Your task to perform on an android device: Go to Yahoo.com Image 0: 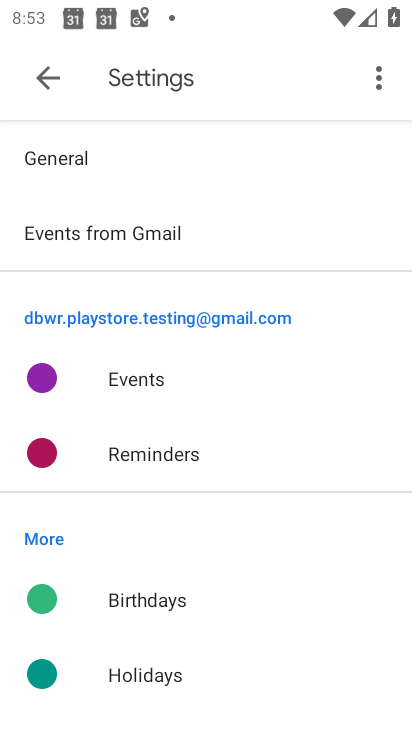
Step 0: click (40, 85)
Your task to perform on an android device: Go to Yahoo.com Image 1: 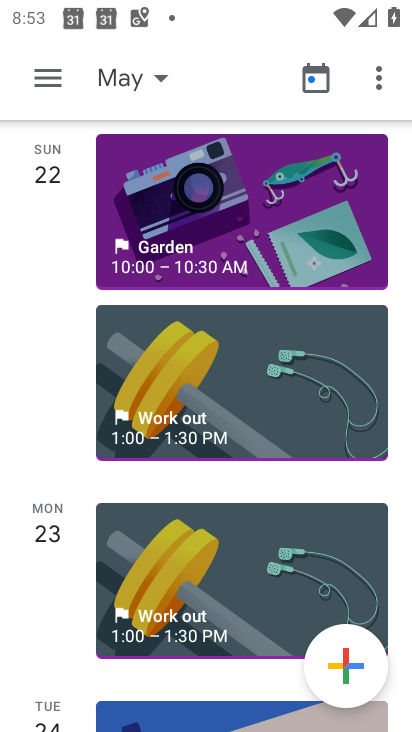
Step 1: press home button
Your task to perform on an android device: Go to Yahoo.com Image 2: 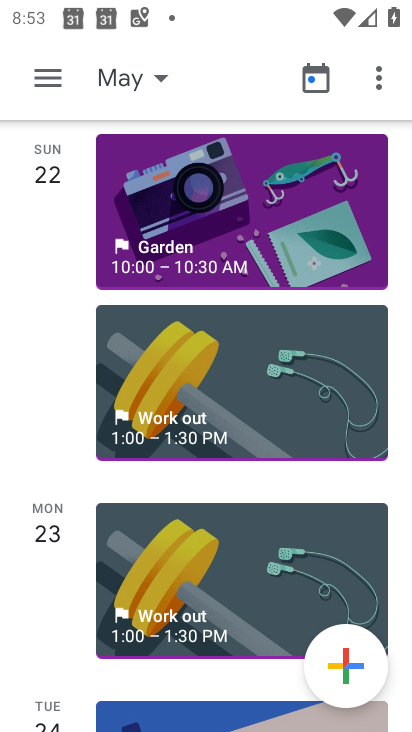
Step 2: press home button
Your task to perform on an android device: Go to Yahoo.com Image 3: 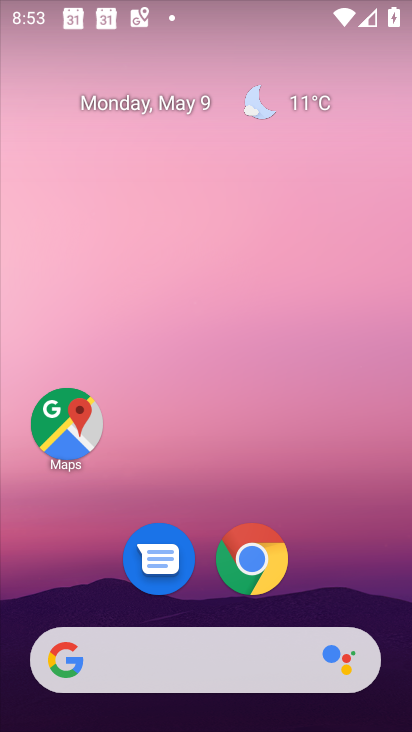
Step 3: click (247, 545)
Your task to perform on an android device: Go to Yahoo.com Image 4: 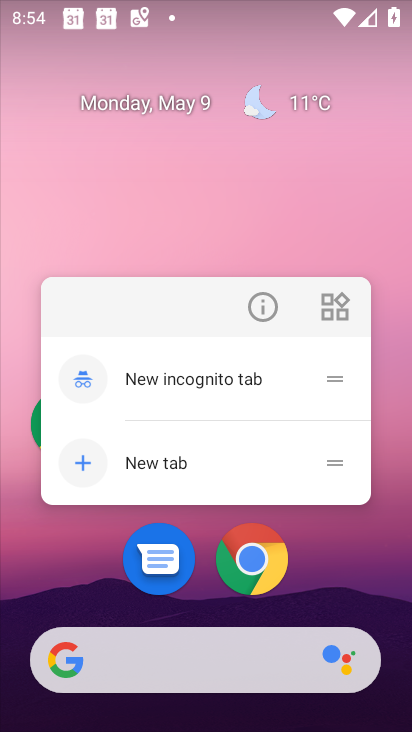
Step 4: click (250, 555)
Your task to perform on an android device: Go to Yahoo.com Image 5: 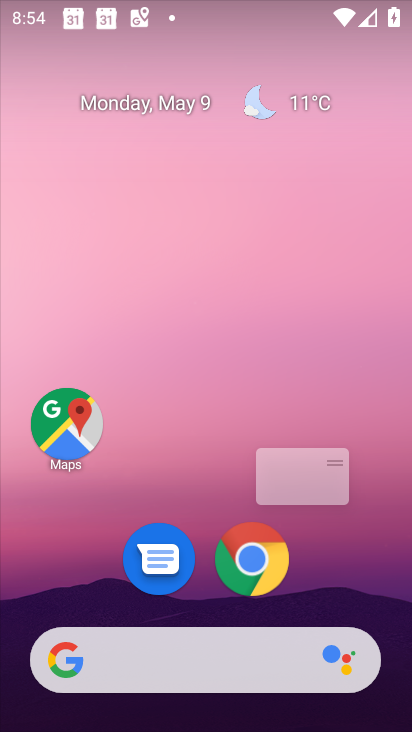
Step 5: click (250, 555)
Your task to perform on an android device: Go to Yahoo.com Image 6: 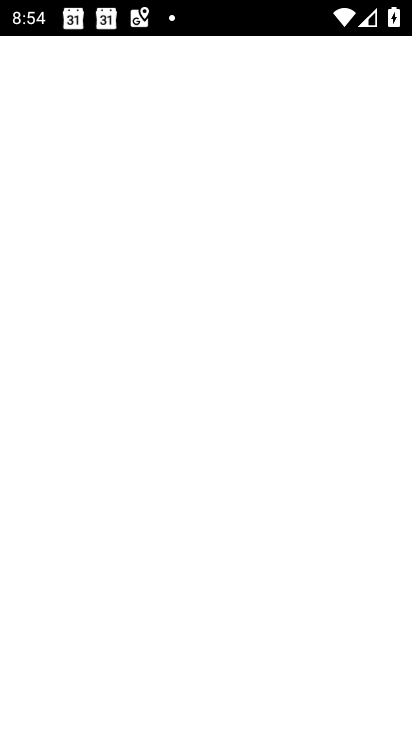
Step 6: click (239, 554)
Your task to perform on an android device: Go to Yahoo.com Image 7: 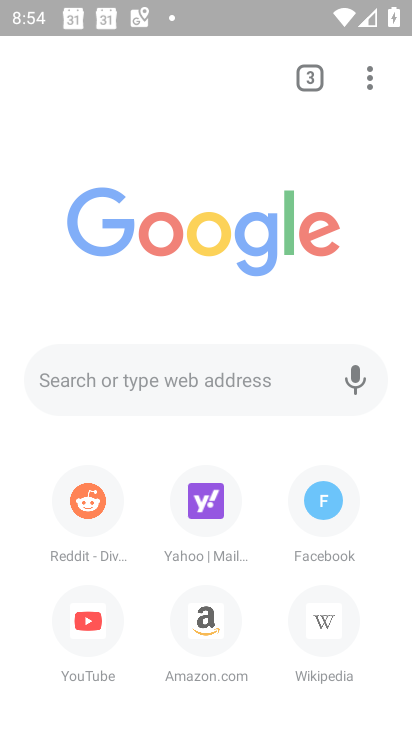
Step 7: click (239, 554)
Your task to perform on an android device: Go to Yahoo.com Image 8: 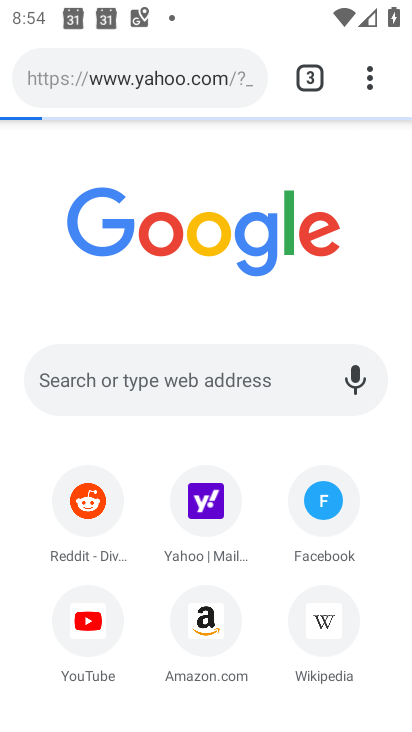
Step 8: click (239, 554)
Your task to perform on an android device: Go to Yahoo.com Image 9: 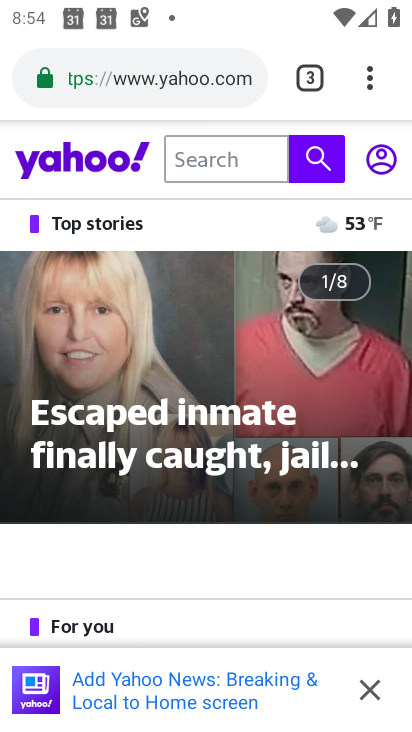
Step 9: task complete